Your task to perform on an android device: Go to Amazon Image 0: 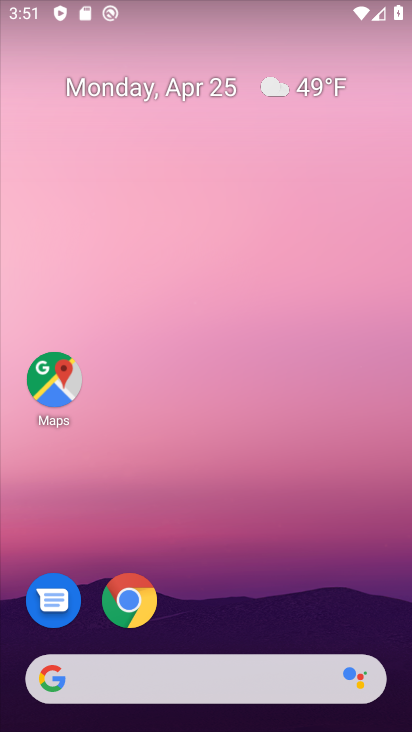
Step 0: click (126, 606)
Your task to perform on an android device: Go to Amazon Image 1: 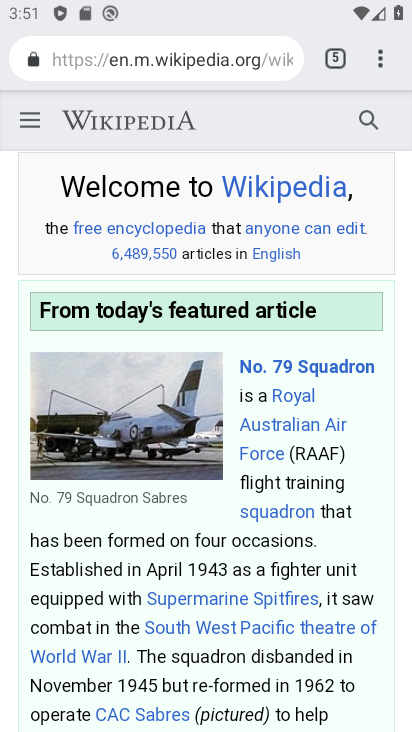
Step 1: click (377, 54)
Your task to perform on an android device: Go to Amazon Image 2: 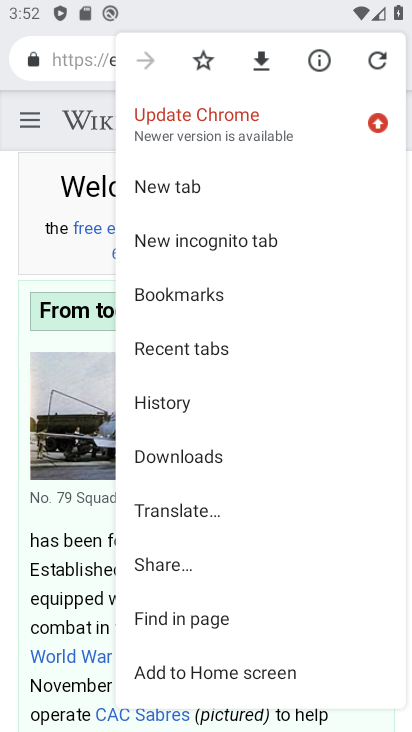
Step 2: click (277, 169)
Your task to perform on an android device: Go to Amazon Image 3: 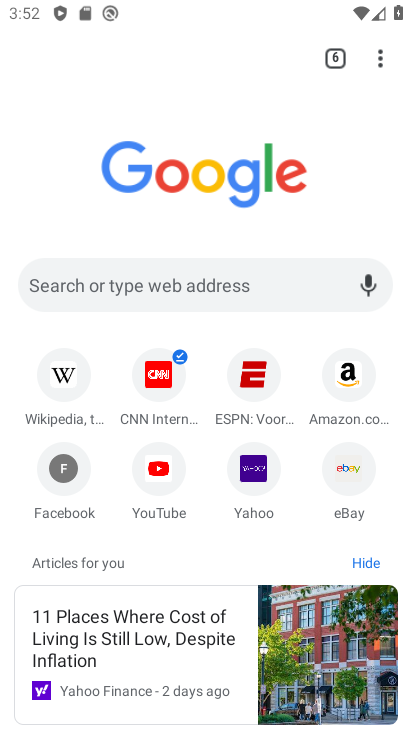
Step 3: click (344, 369)
Your task to perform on an android device: Go to Amazon Image 4: 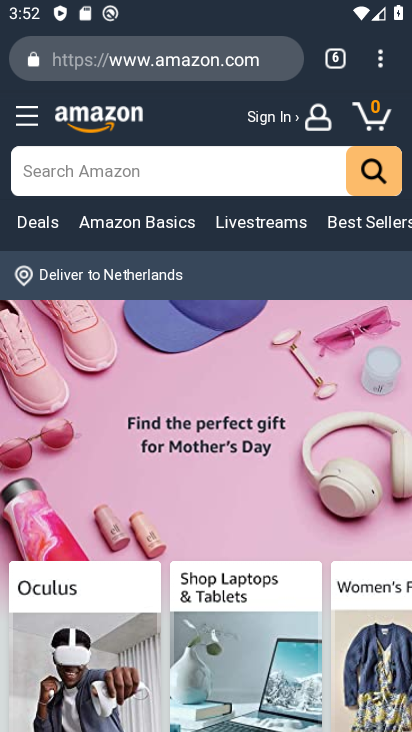
Step 4: task complete